Your task to perform on an android device: Search for Mexican restaurants on Maps Image 0: 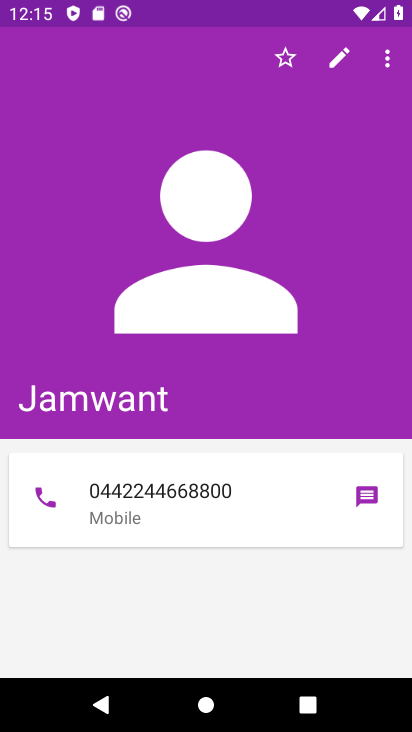
Step 0: press home button
Your task to perform on an android device: Search for Mexican restaurants on Maps Image 1: 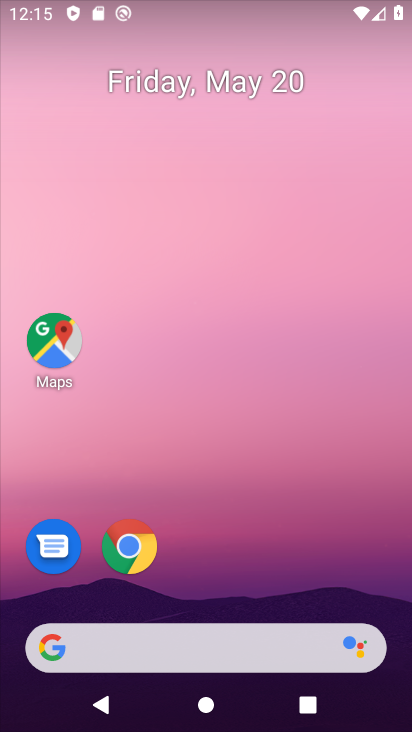
Step 1: click (58, 341)
Your task to perform on an android device: Search for Mexican restaurants on Maps Image 2: 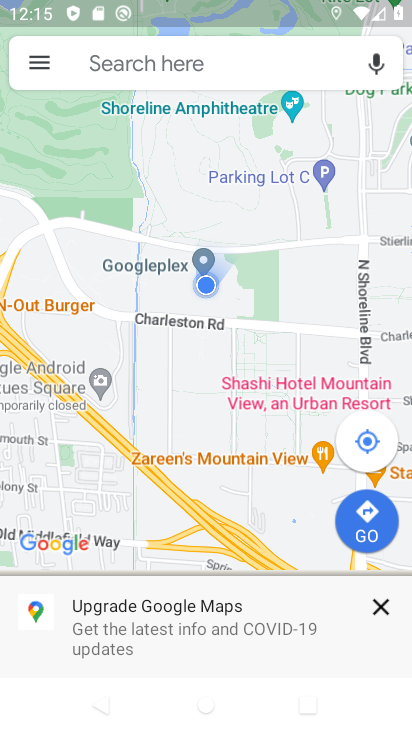
Step 2: click (170, 54)
Your task to perform on an android device: Search for Mexican restaurants on Maps Image 3: 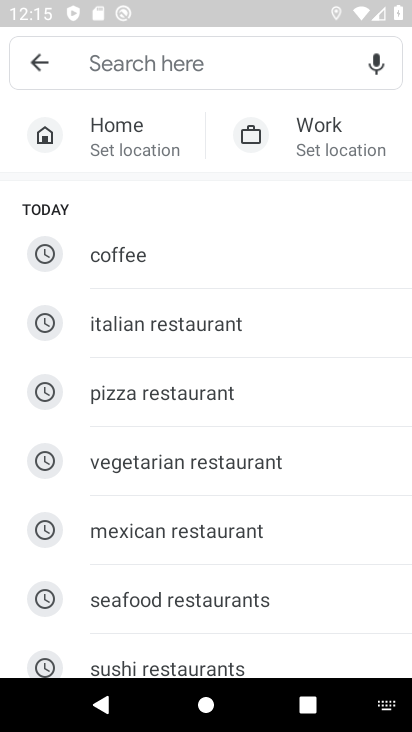
Step 3: click (194, 529)
Your task to perform on an android device: Search for Mexican restaurants on Maps Image 4: 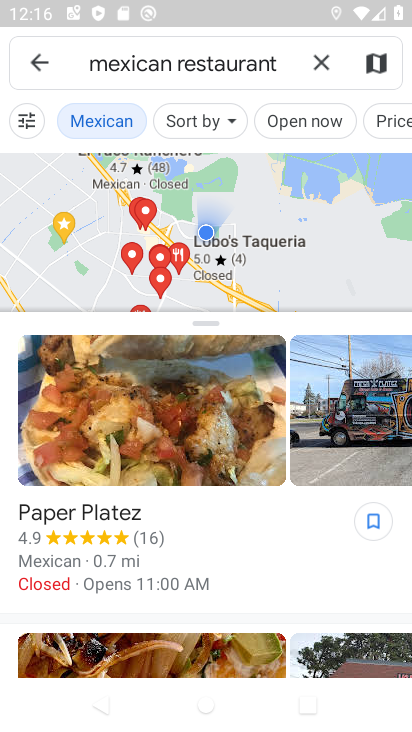
Step 4: task complete